Your task to perform on an android device: Open maps Image 0: 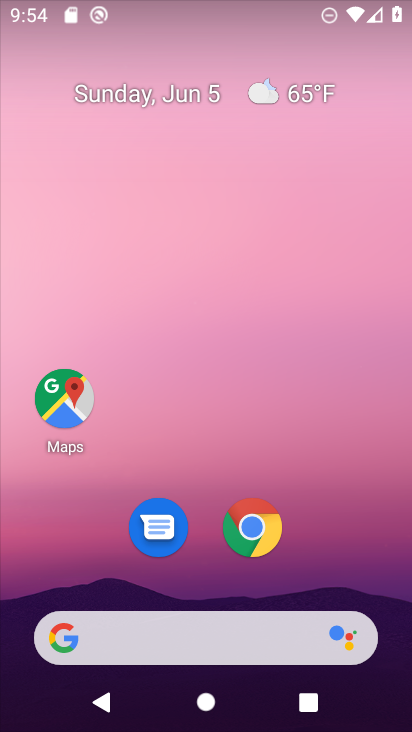
Step 0: click (83, 410)
Your task to perform on an android device: Open maps Image 1: 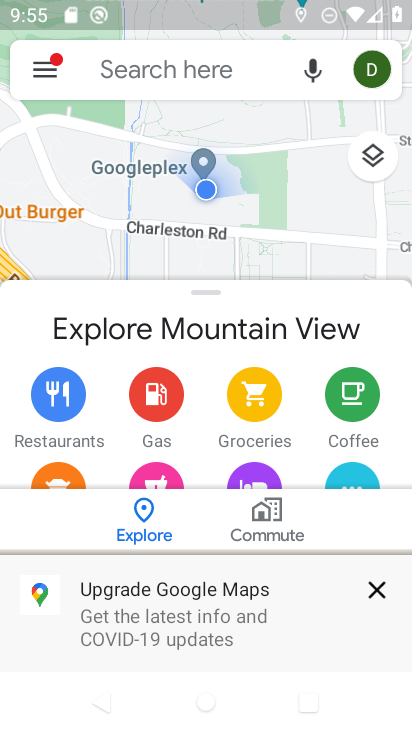
Step 1: task complete